Your task to perform on an android device: change the upload size in google photos Image 0: 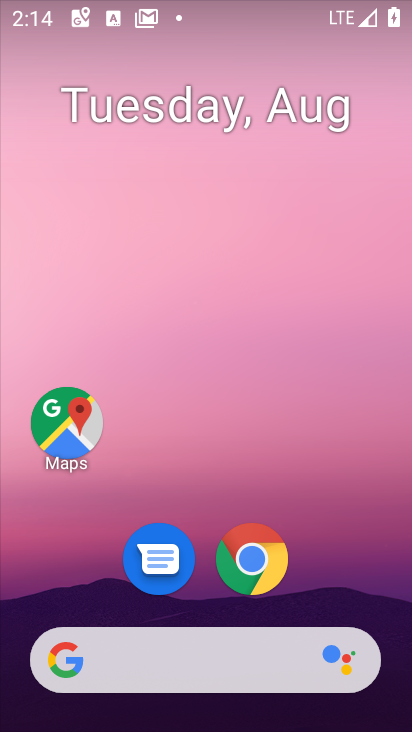
Step 0: drag from (191, 488) to (149, 47)
Your task to perform on an android device: change the upload size in google photos Image 1: 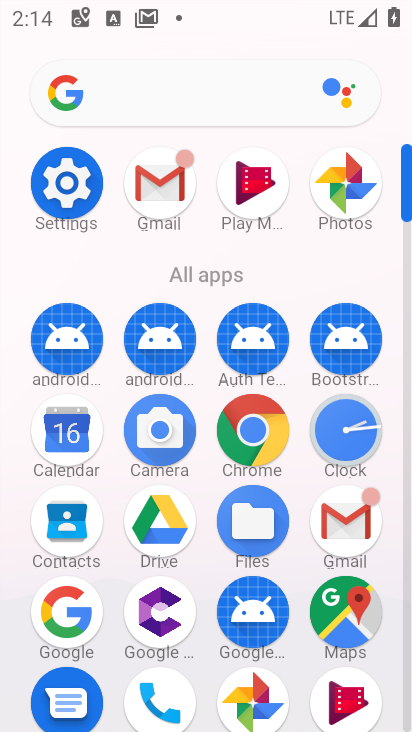
Step 1: click (334, 183)
Your task to perform on an android device: change the upload size in google photos Image 2: 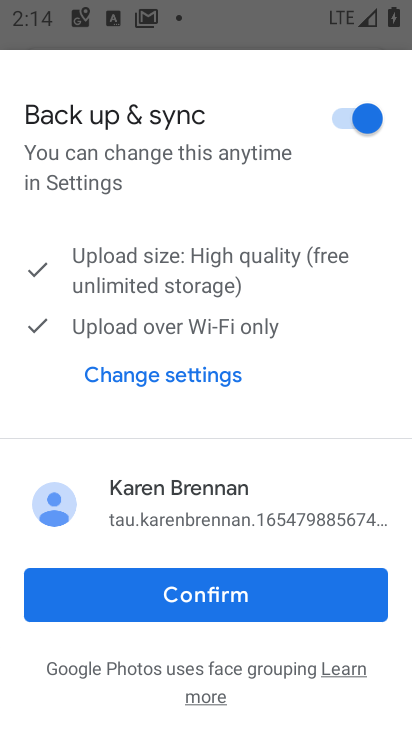
Step 2: click (174, 577)
Your task to perform on an android device: change the upload size in google photos Image 3: 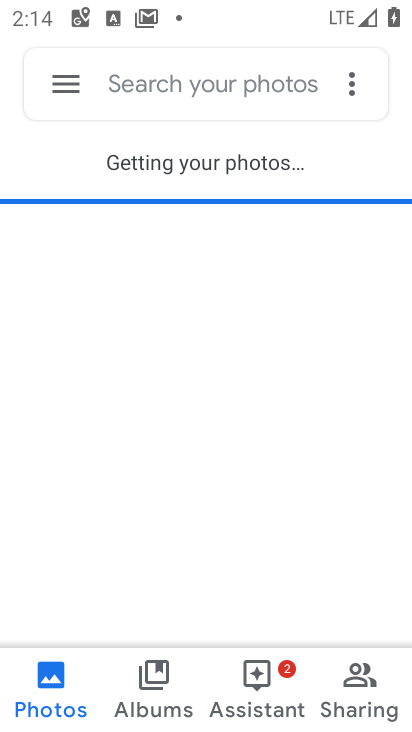
Step 3: click (53, 79)
Your task to perform on an android device: change the upload size in google photos Image 4: 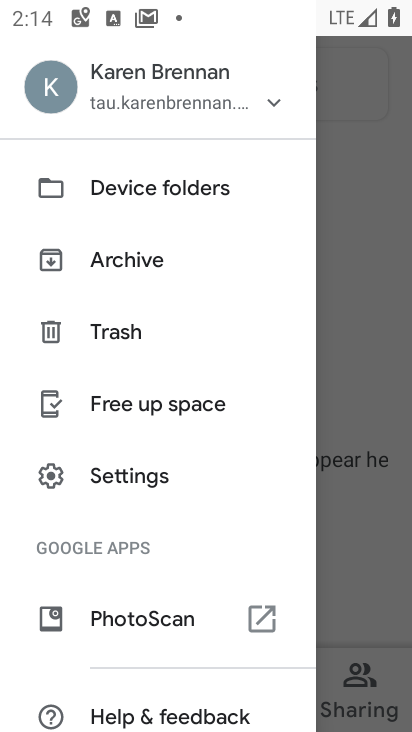
Step 4: click (95, 491)
Your task to perform on an android device: change the upload size in google photos Image 5: 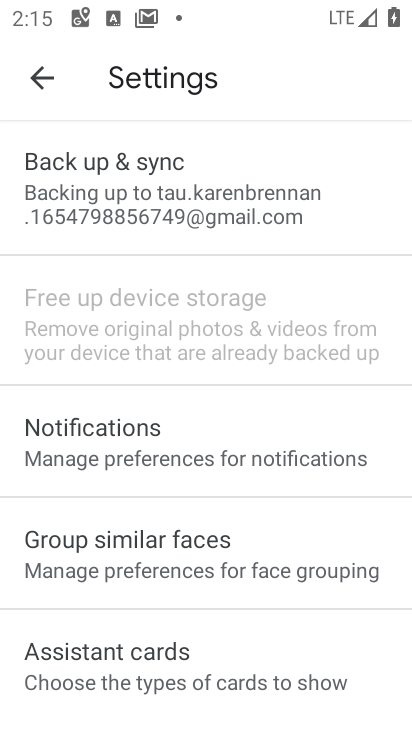
Step 5: click (91, 213)
Your task to perform on an android device: change the upload size in google photos Image 6: 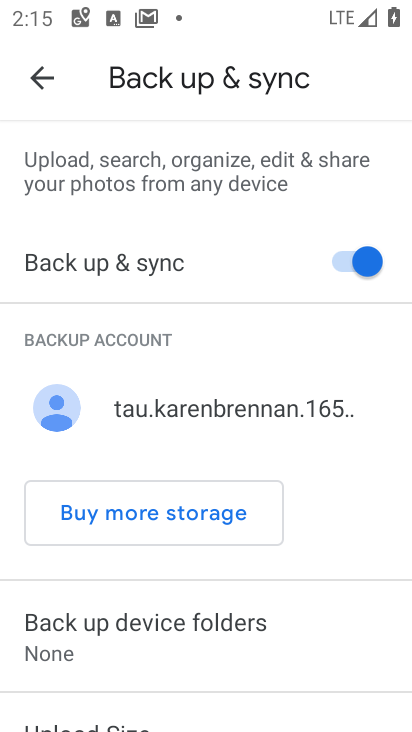
Step 6: drag from (203, 603) to (161, 232)
Your task to perform on an android device: change the upload size in google photos Image 7: 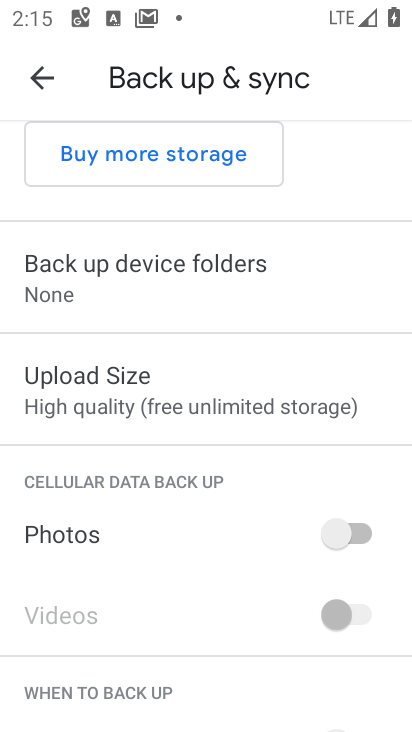
Step 7: click (147, 384)
Your task to perform on an android device: change the upload size in google photos Image 8: 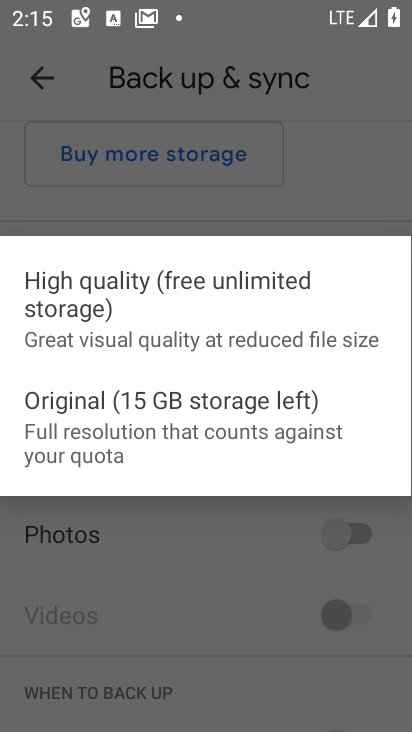
Step 8: click (128, 416)
Your task to perform on an android device: change the upload size in google photos Image 9: 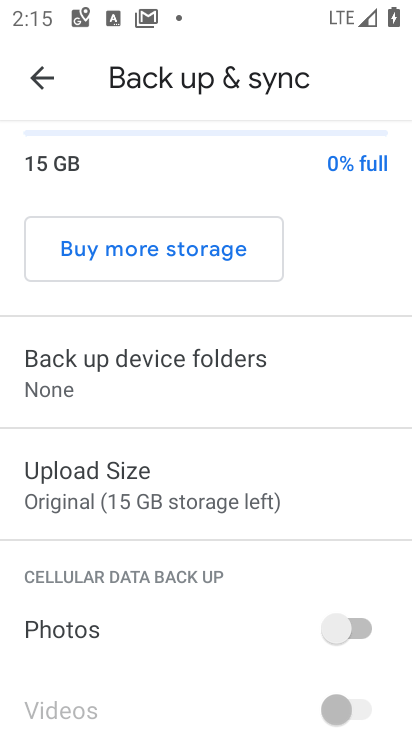
Step 9: task complete